Your task to perform on an android device: show emergency info Image 0: 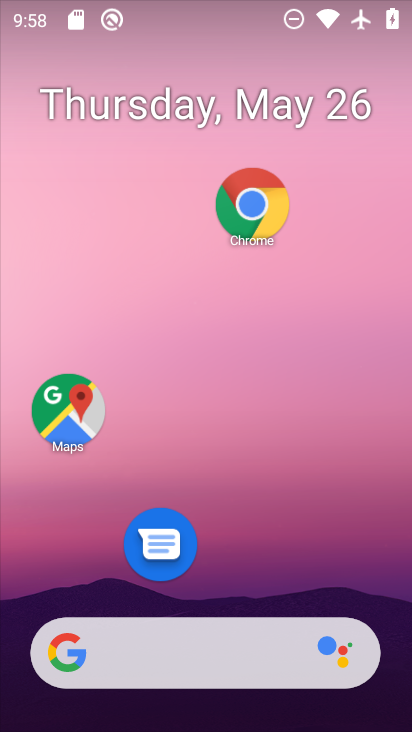
Step 0: drag from (222, 597) to (211, 30)
Your task to perform on an android device: show emergency info Image 1: 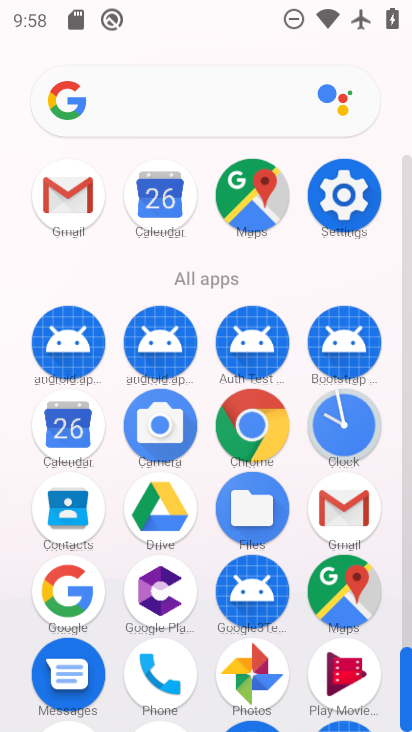
Step 1: click (340, 184)
Your task to perform on an android device: show emergency info Image 2: 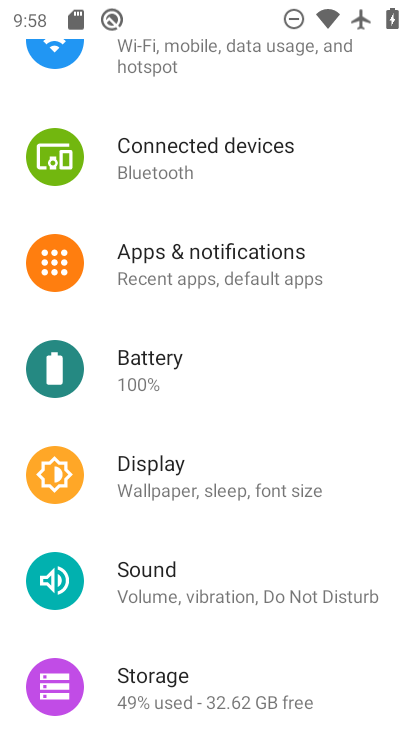
Step 2: drag from (234, 674) to (237, 238)
Your task to perform on an android device: show emergency info Image 3: 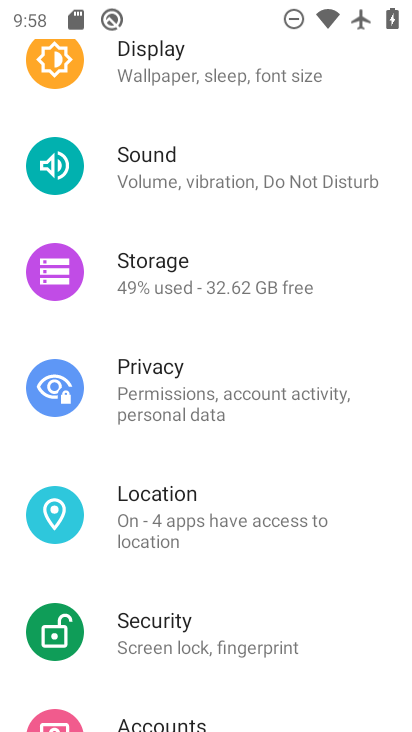
Step 3: drag from (234, 666) to (272, 154)
Your task to perform on an android device: show emergency info Image 4: 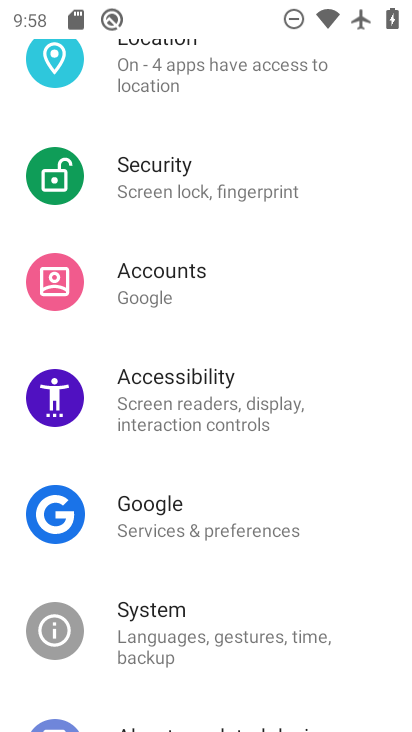
Step 4: drag from (201, 673) to (216, 201)
Your task to perform on an android device: show emergency info Image 5: 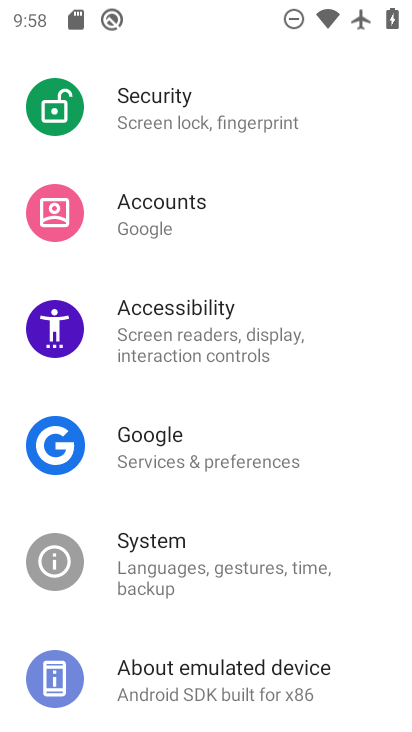
Step 5: click (323, 679)
Your task to perform on an android device: show emergency info Image 6: 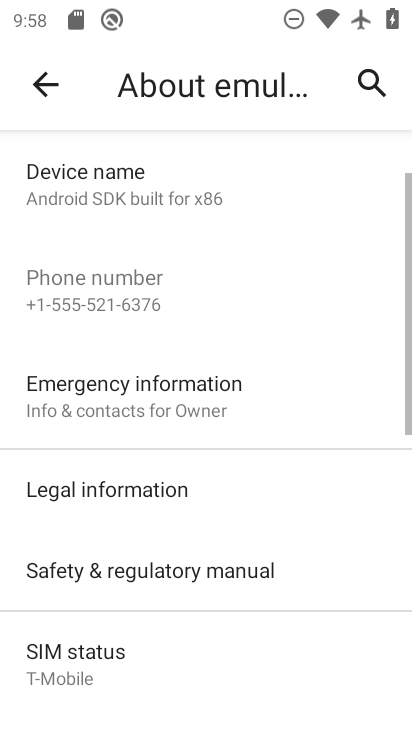
Step 6: click (251, 402)
Your task to perform on an android device: show emergency info Image 7: 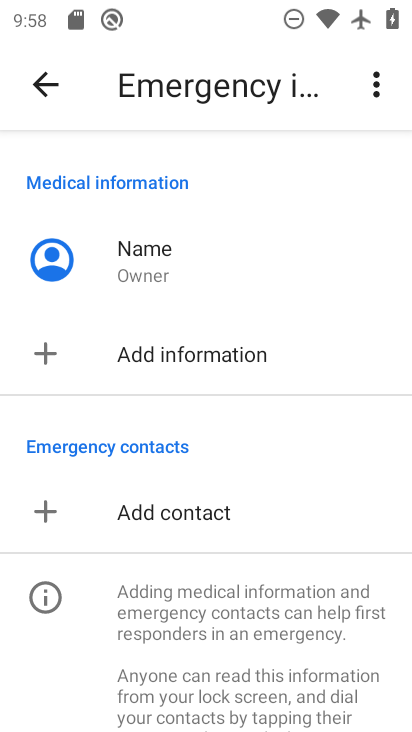
Step 7: task complete